Your task to perform on an android device: turn off location history Image 0: 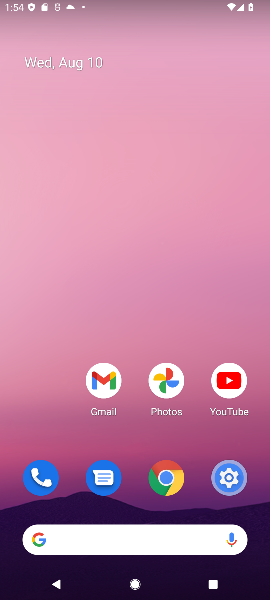
Step 0: click (230, 495)
Your task to perform on an android device: turn off location history Image 1: 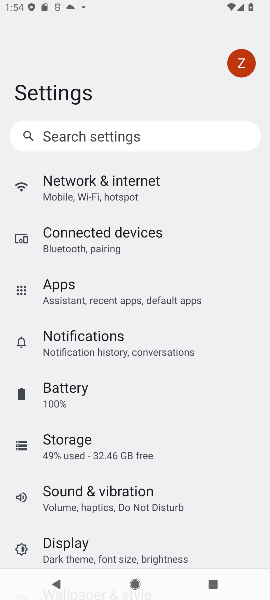
Step 1: task complete